Your task to perform on an android device: change the upload size in google photos Image 0: 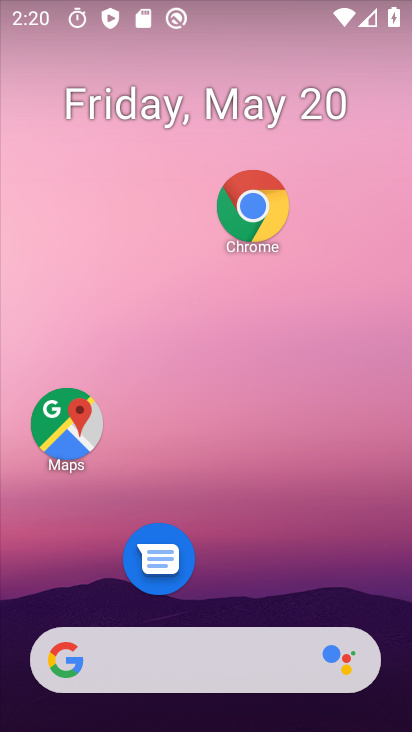
Step 0: drag from (200, 617) to (136, 30)
Your task to perform on an android device: change the upload size in google photos Image 1: 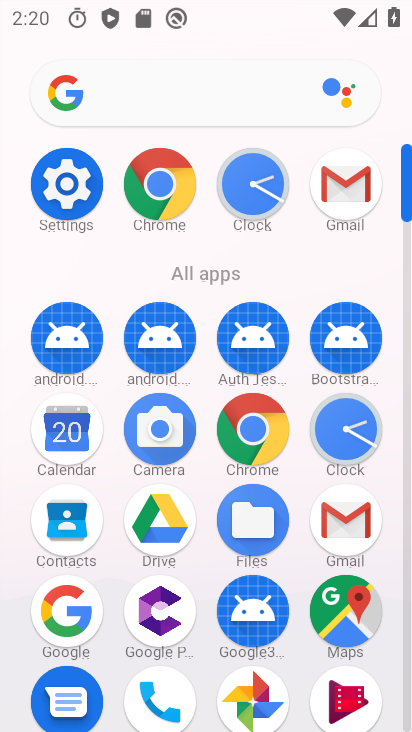
Step 1: click (250, 705)
Your task to perform on an android device: change the upload size in google photos Image 2: 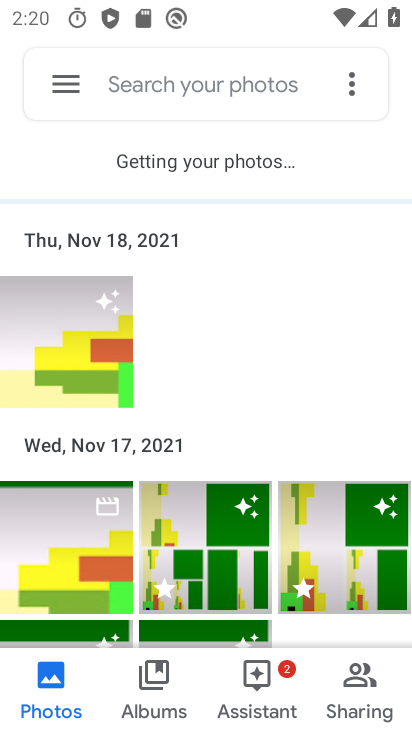
Step 2: click (61, 85)
Your task to perform on an android device: change the upload size in google photos Image 3: 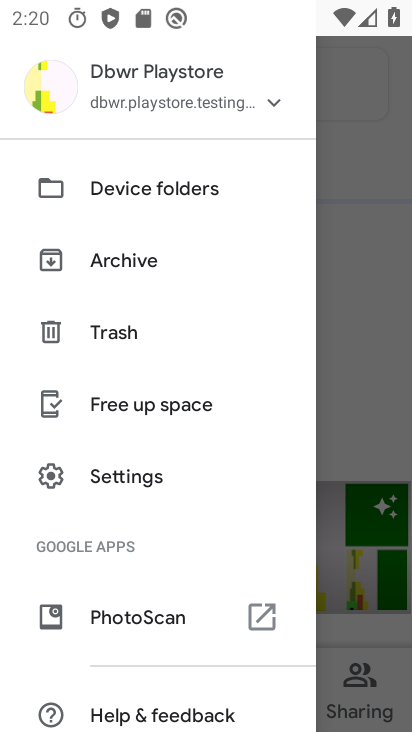
Step 3: click (112, 455)
Your task to perform on an android device: change the upload size in google photos Image 4: 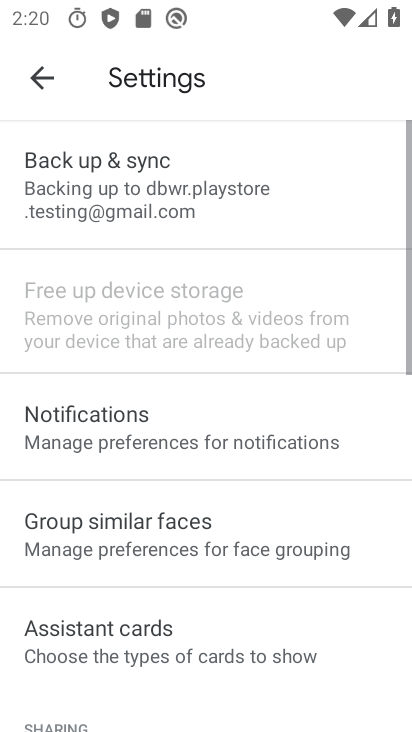
Step 4: click (133, 201)
Your task to perform on an android device: change the upload size in google photos Image 5: 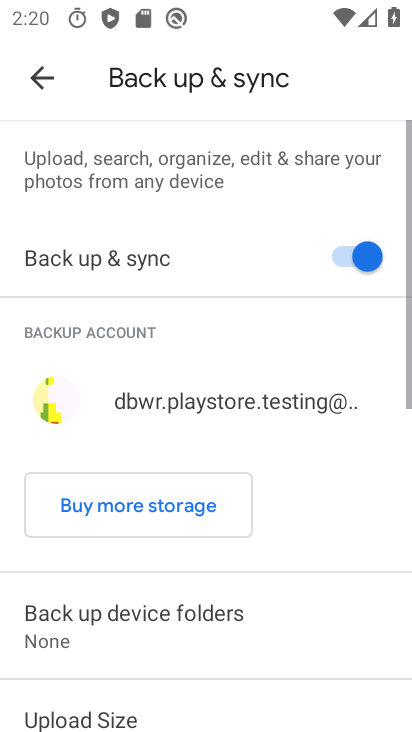
Step 5: drag from (224, 631) to (200, 224)
Your task to perform on an android device: change the upload size in google photos Image 6: 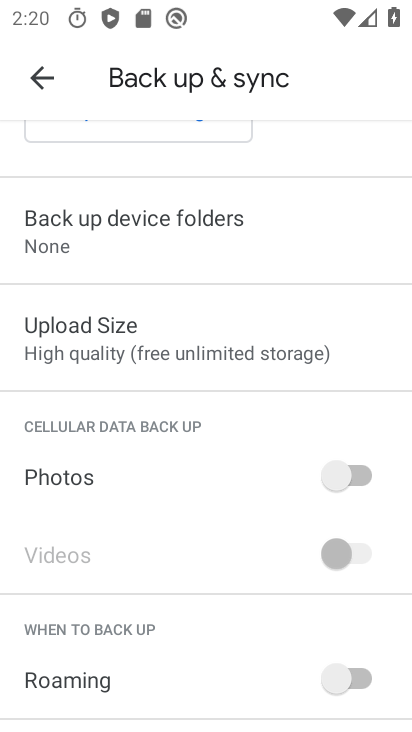
Step 6: click (135, 355)
Your task to perform on an android device: change the upload size in google photos Image 7: 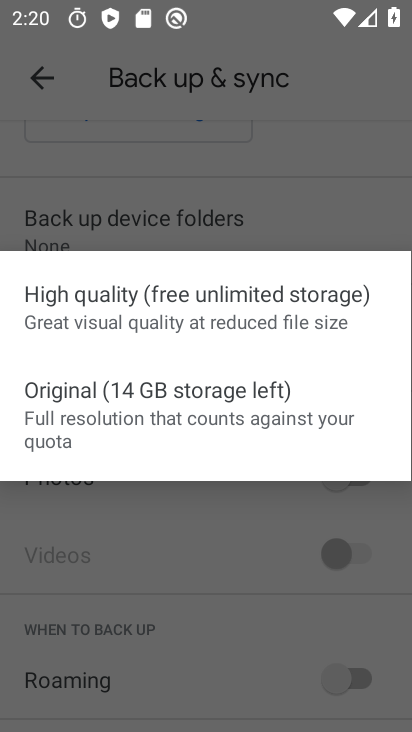
Step 7: click (135, 393)
Your task to perform on an android device: change the upload size in google photos Image 8: 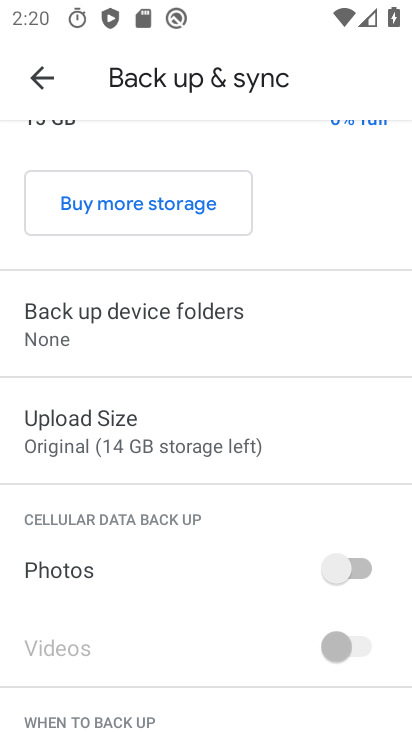
Step 8: task complete